Your task to perform on an android device: Open the phone app and click the voicemail tab. Image 0: 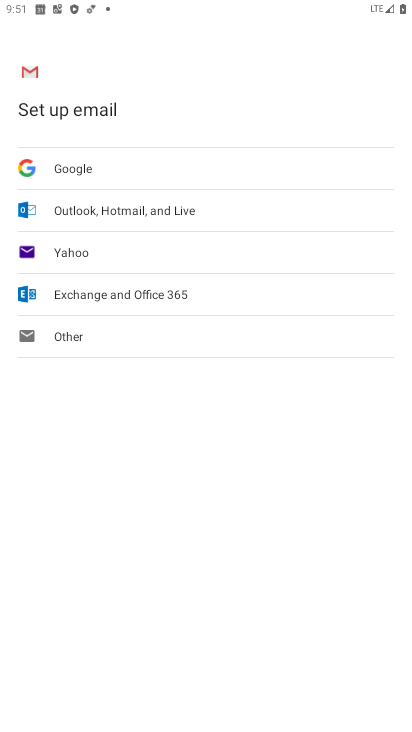
Step 0: press home button
Your task to perform on an android device: Open the phone app and click the voicemail tab. Image 1: 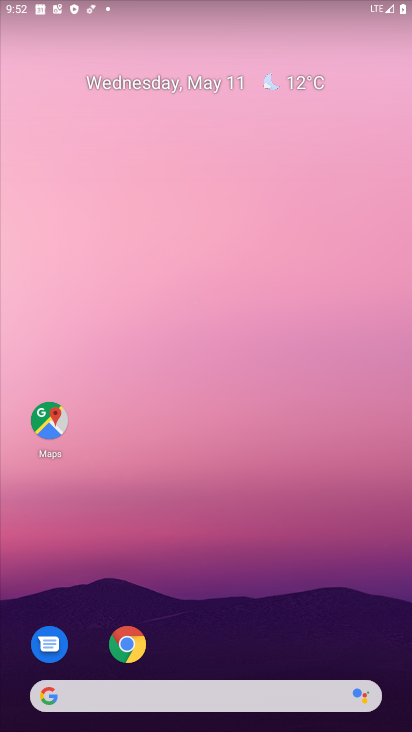
Step 1: drag from (285, 649) to (269, 113)
Your task to perform on an android device: Open the phone app and click the voicemail tab. Image 2: 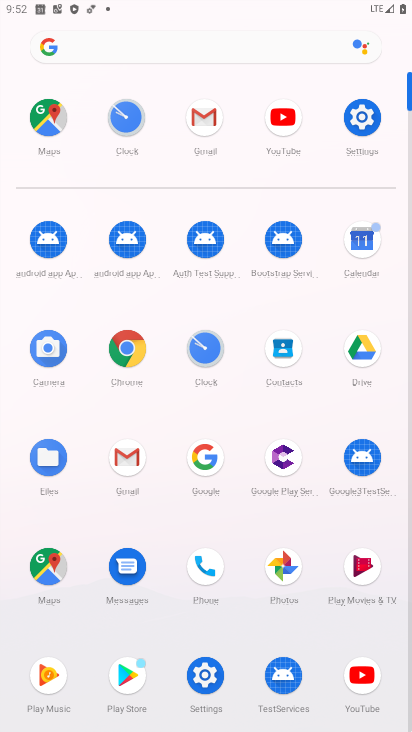
Step 2: click (212, 583)
Your task to perform on an android device: Open the phone app and click the voicemail tab. Image 3: 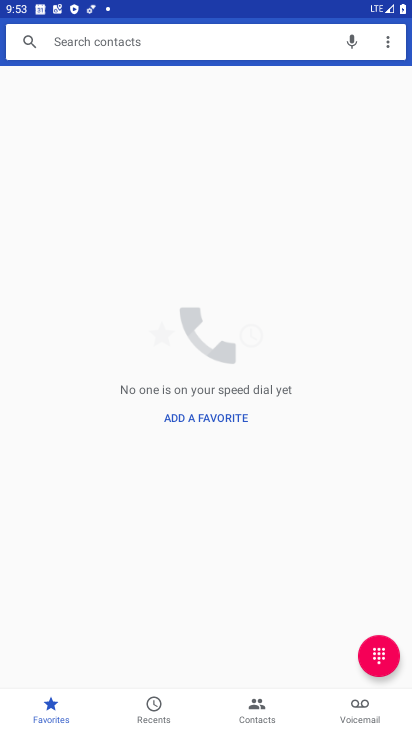
Step 3: click (211, 568)
Your task to perform on an android device: Open the phone app and click the voicemail tab. Image 4: 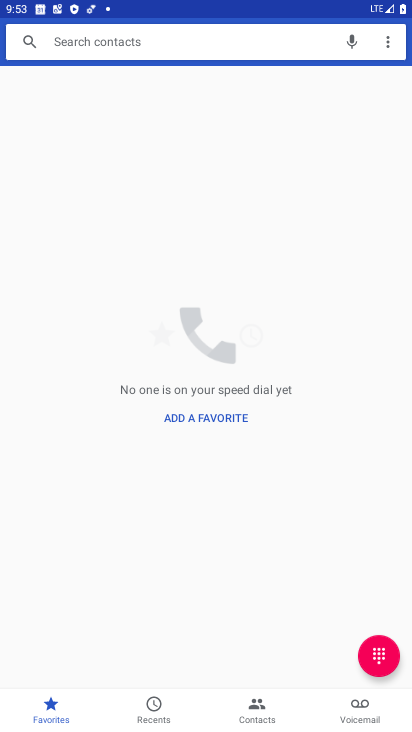
Step 4: click (368, 721)
Your task to perform on an android device: Open the phone app and click the voicemail tab. Image 5: 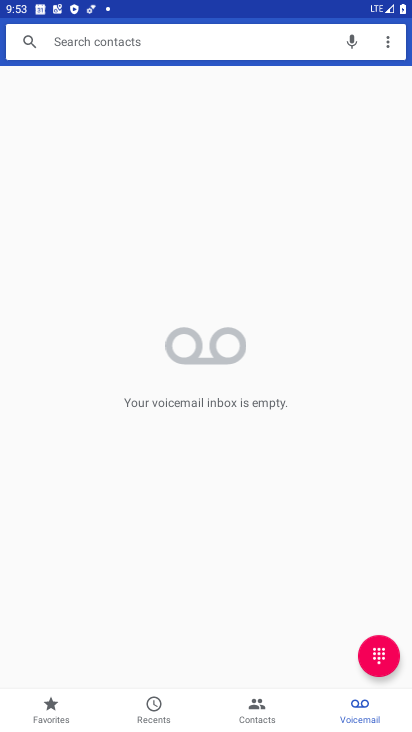
Step 5: task complete